Your task to perform on an android device: Open settings on Google Maps Image 0: 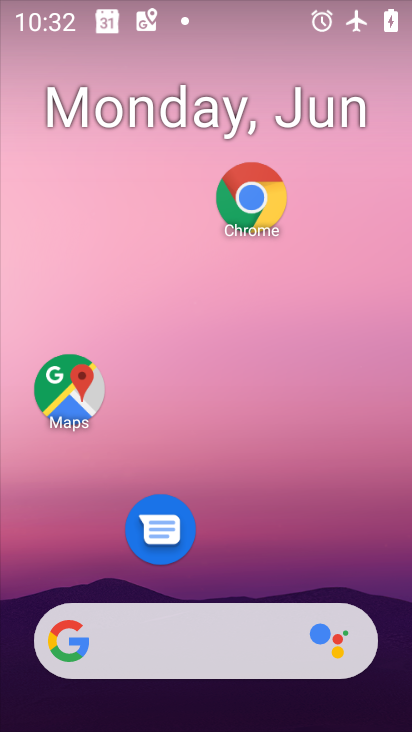
Step 0: click (85, 411)
Your task to perform on an android device: Open settings on Google Maps Image 1: 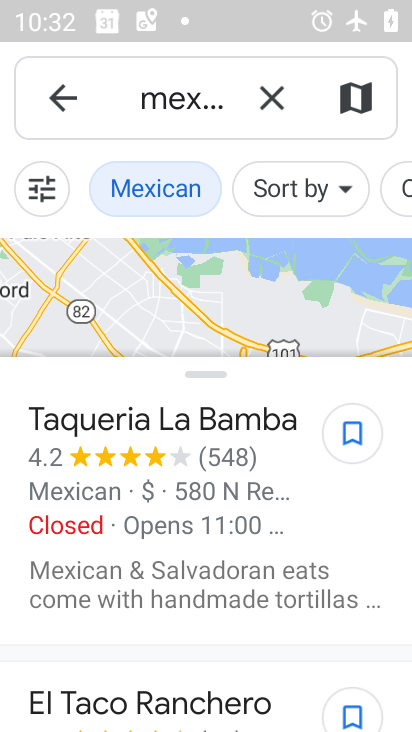
Step 1: click (72, 95)
Your task to perform on an android device: Open settings on Google Maps Image 2: 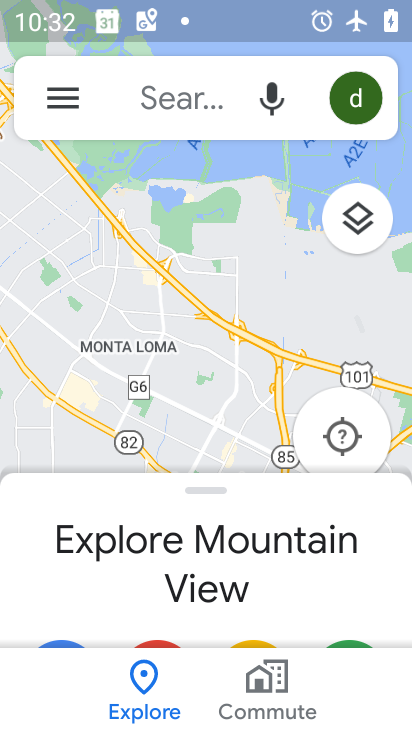
Step 2: click (56, 89)
Your task to perform on an android device: Open settings on Google Maps Image 3: 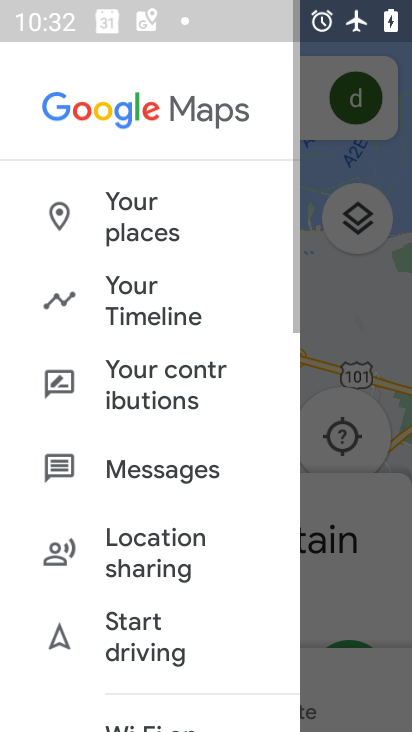
Step 3: drag from (144, 582) to (145, 197)
Your task to perform on an android device: Open settings on Google Maps Image 4: 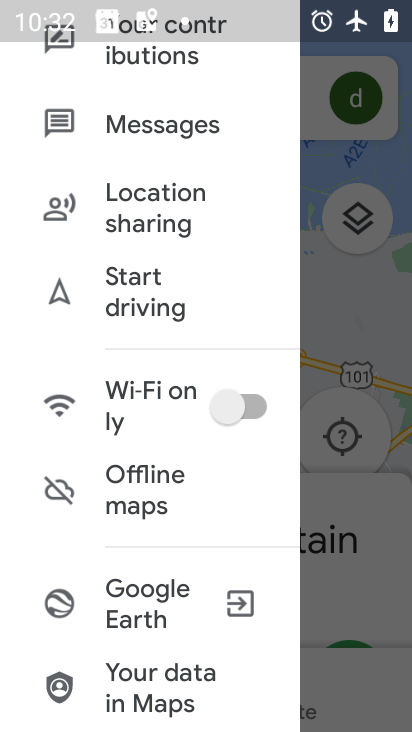
Step 4: drag from (126, 619) to (129, 252)
Your task to perform on an android device: Open settings on Google Maps Image 5: 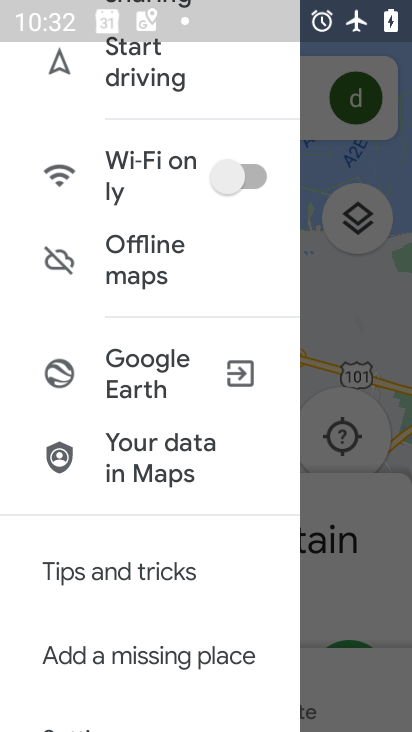
Step 5: drag from (147, 568) to (154, 230)
Your task to perform on an android device: Open settings on Google Maps Image 6: 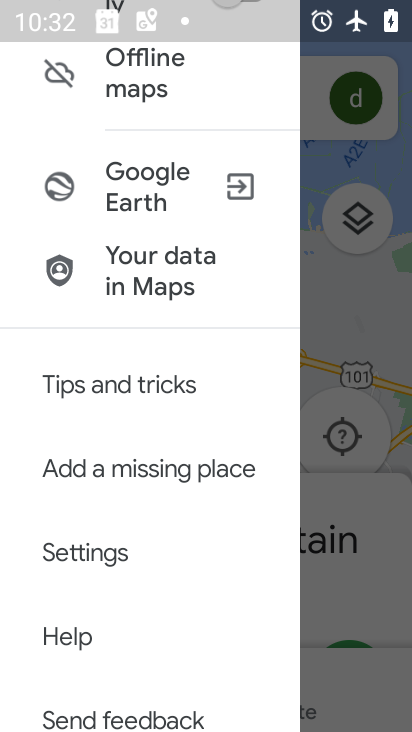
Step 6: click (143, 557)
Your task to perform on an android device: Open settings on Google Maps Image 7: 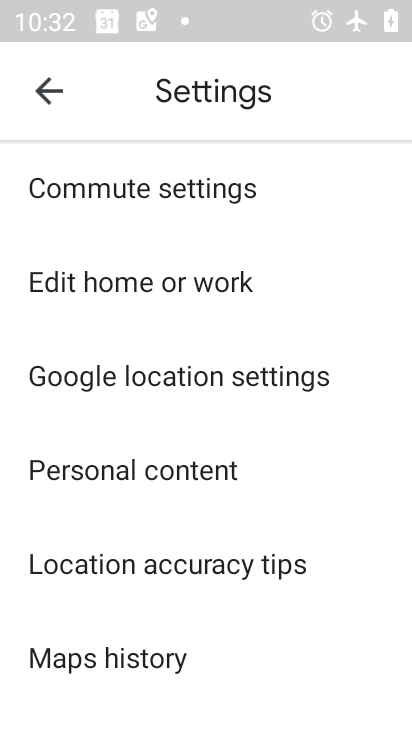
Step 7: task complete